Your task to perform on an android device: Open settings Image 0: 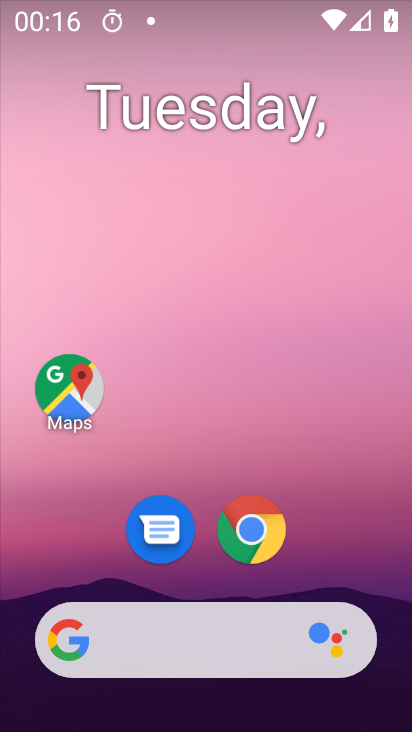
Step 0: drag from (350, 472) to (296, 4)
Your task to perform on an android device: Open settings Image 1: 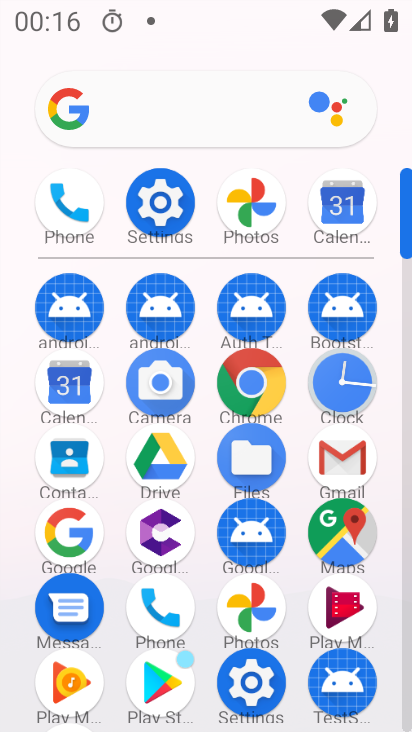
Step 1: click (162, 219)
Your task to perform on an android device: Open settings Image 2: 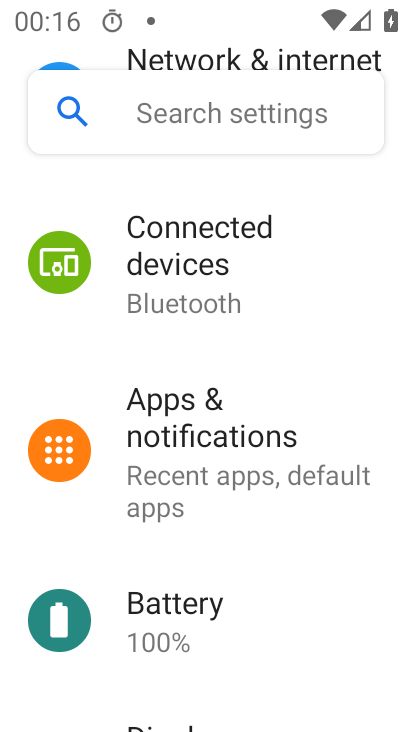
Step 2: task complete